Your task to perform on an android device: toggle translation in the chrome app Image 0: 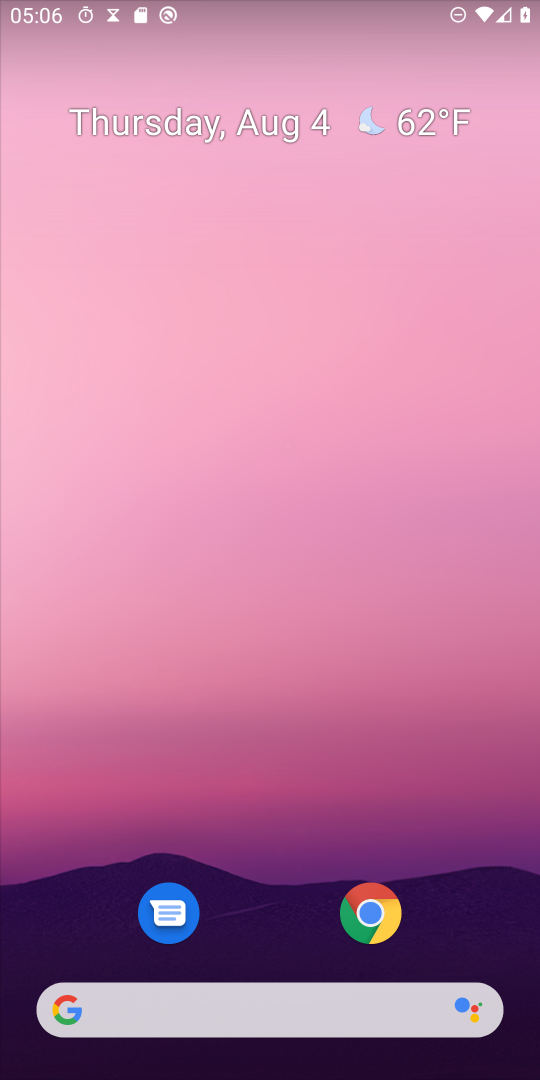
Step 0: drag from (366, 1022) to (377, 28)
Your task to perform on an android device: toggle translation in the chrome app Image 1: 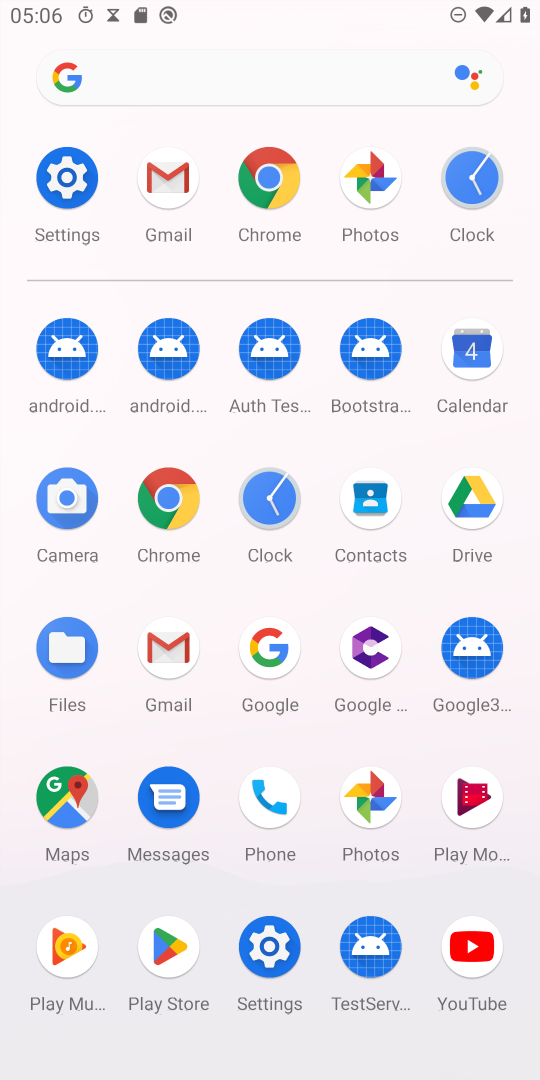
Step 1: click (165, 506)
Your task to perform on an android device: toggle translation in the chrome app Image 2: 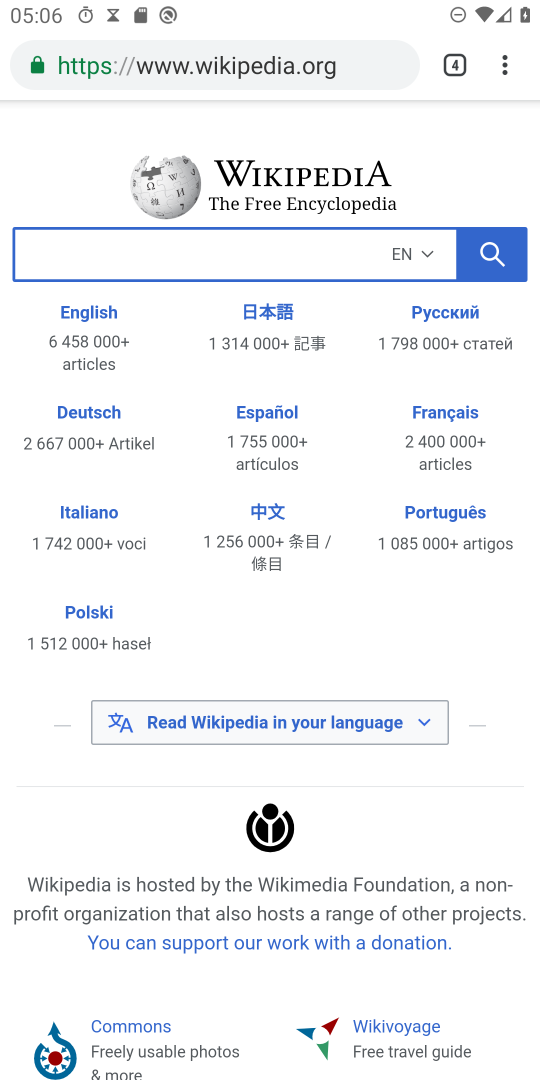
Step 2: drag from (495, 56) to (277, 720)
Your task to perform on an android device: toggle translation in the chrome app Image 3: 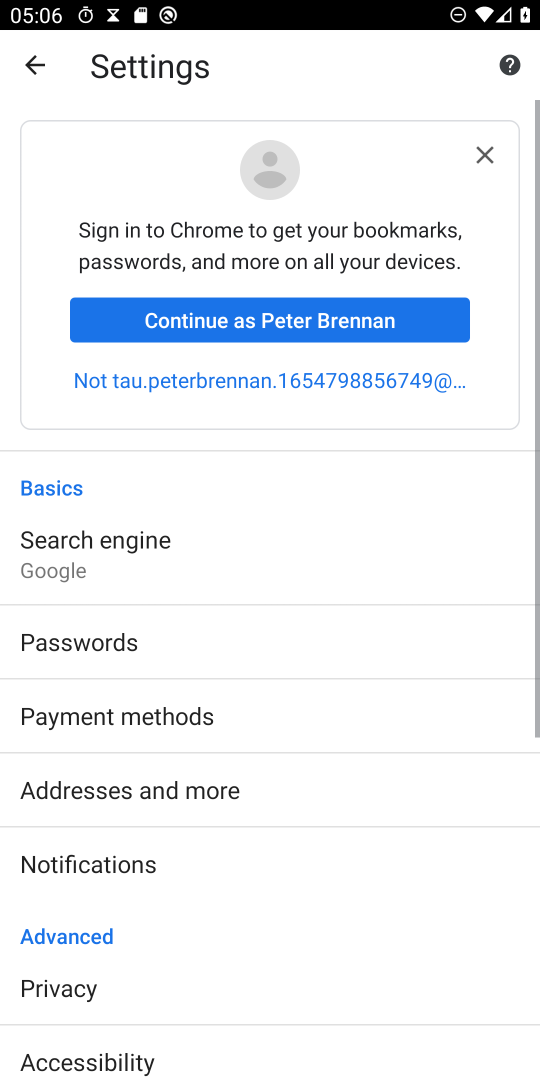
Step 3: drag from (344, 883) to (248, 91)
Your task to perform on an android device: toggle translation in the chrome app Image 4: 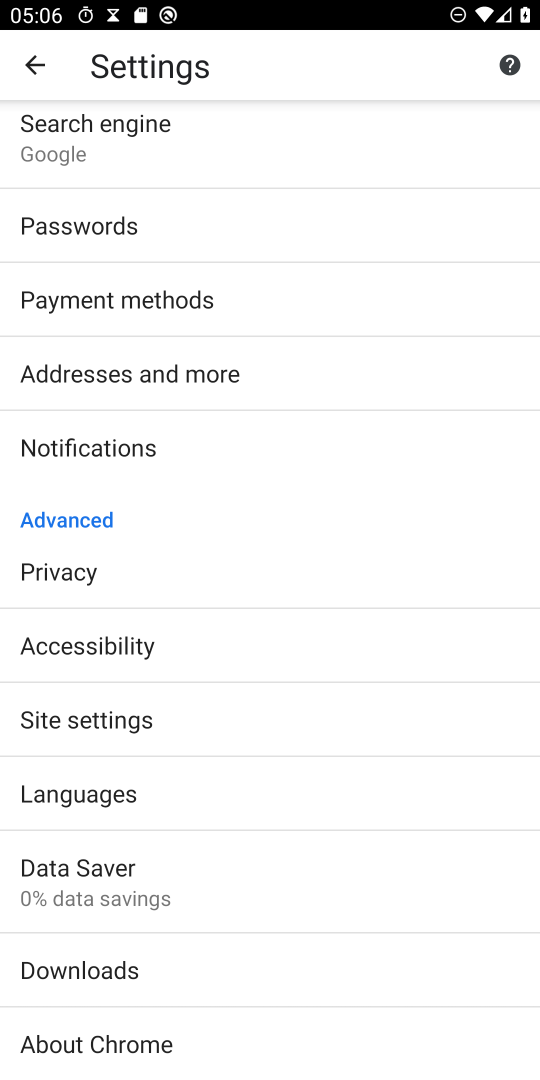
Step 4: click (169, 791)
Your task to perform on an android device: toggle translation in the chrome app Image 5: 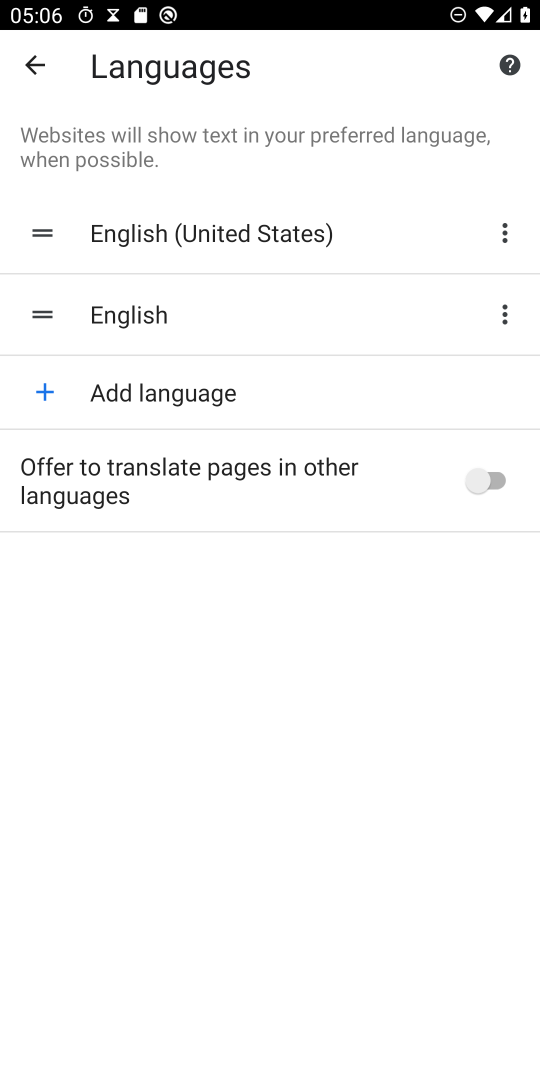
Step 5: click (491, 483)
Your task to perform on an android device: toggle translation in the chrome app Image 6: 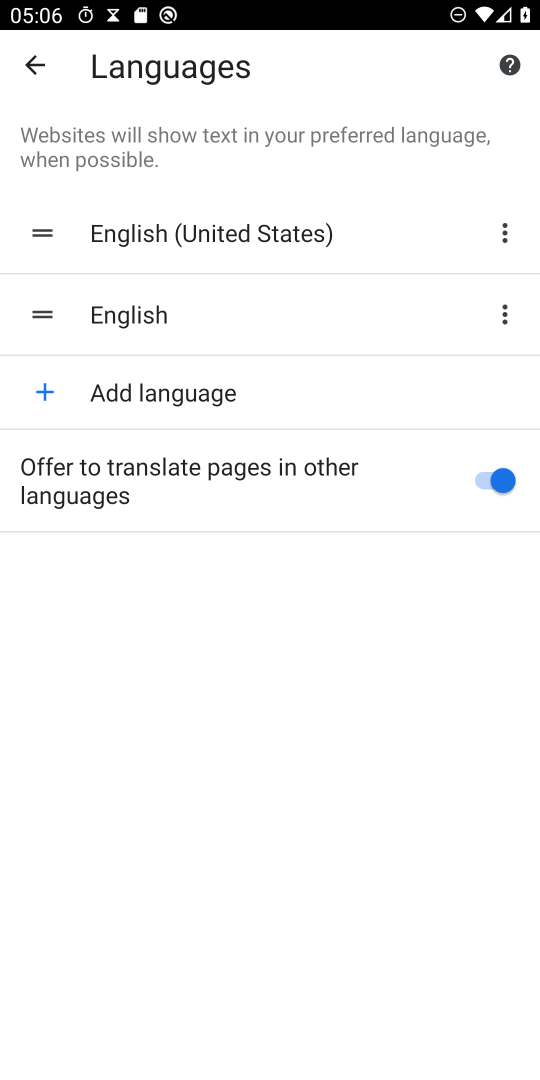
Step 6: task complete